Your task to perform on an android device: Open Reddit.com Image 0: 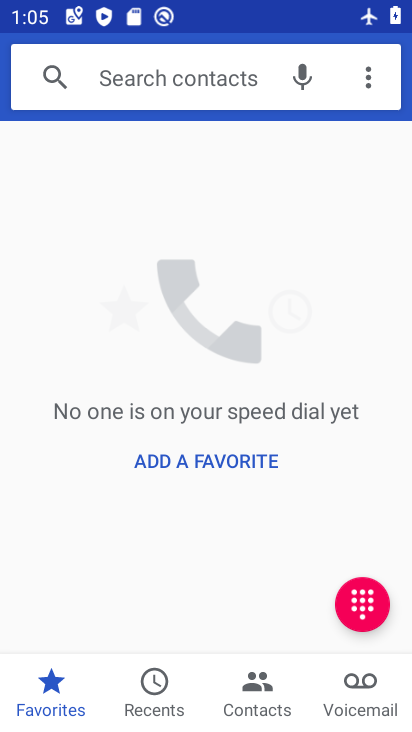
Step 0: press home button
Your task to perform on an android device: Open Reddit.com Image 1: 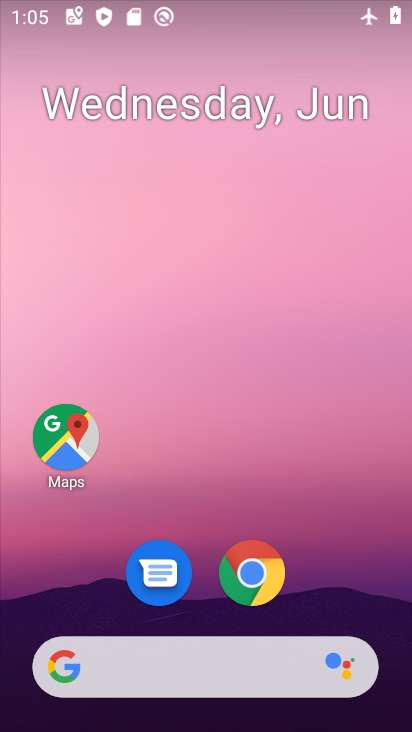
Step 1: drag from (341, 608) to (370, 203)
Your task to perform on an android device: Open Reddit.com Image 2: 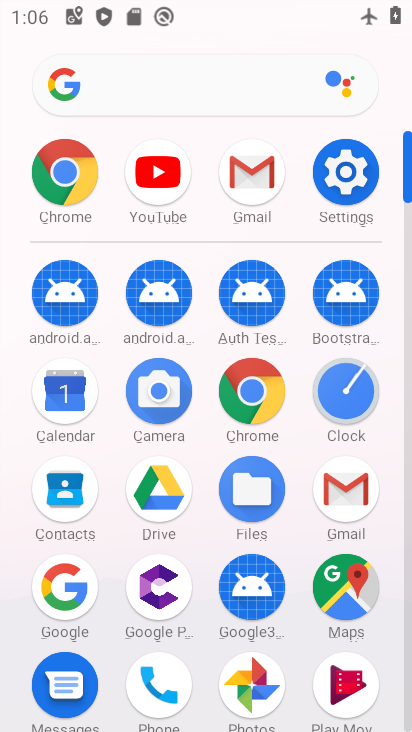
Step 2: click (274, 380)
Your task to perform on an android device: Open Reddit.com Image 3: 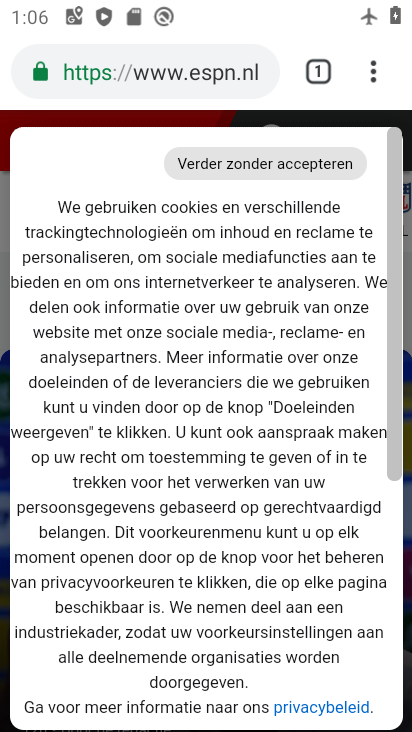
Step 3: click (213, 89)
Your task to perform on an android device: Open Reddit.com Image 4: 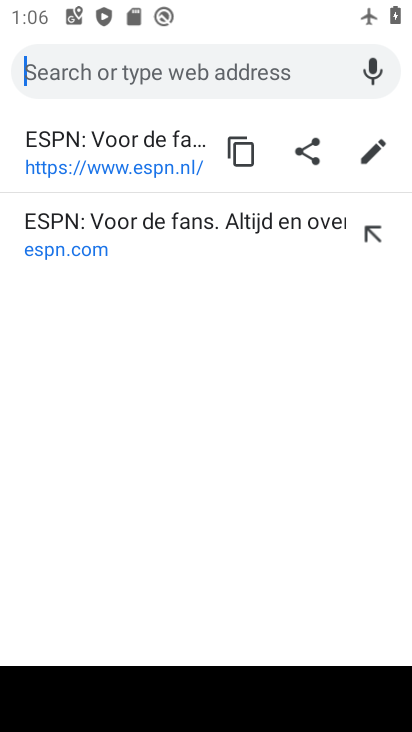
Step 4: type "reddit.com"
Your task to perform on an android device: Open Reddit.com Image 5: 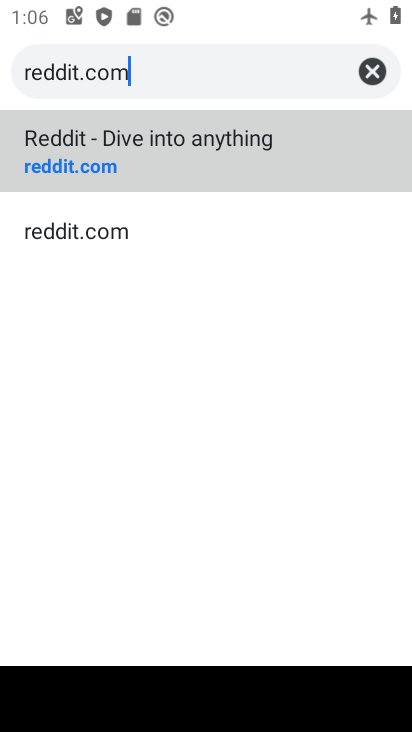
Step 5: click (165, 147)
Your task to perform on an android device: Open Reddit.com Image 6: 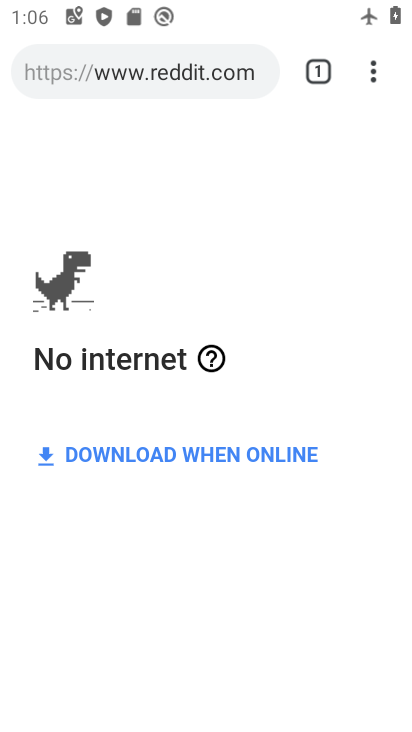
Step 6: task complete